Your task to perform on an android device: Open the web browser Image 0: 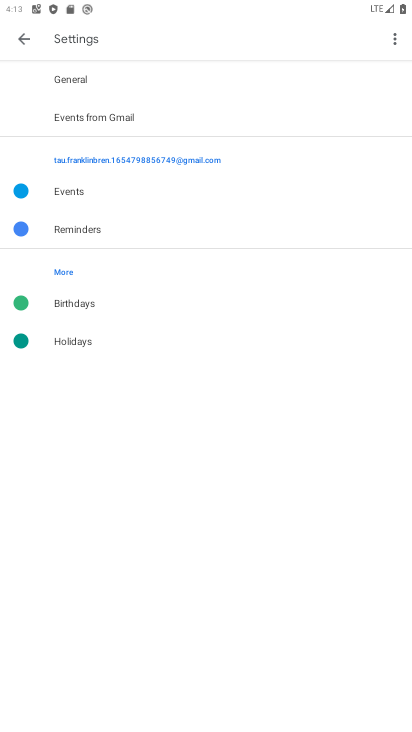
Step 0: press home button
Your task to perform on an android device: Open the web browser Image 1: 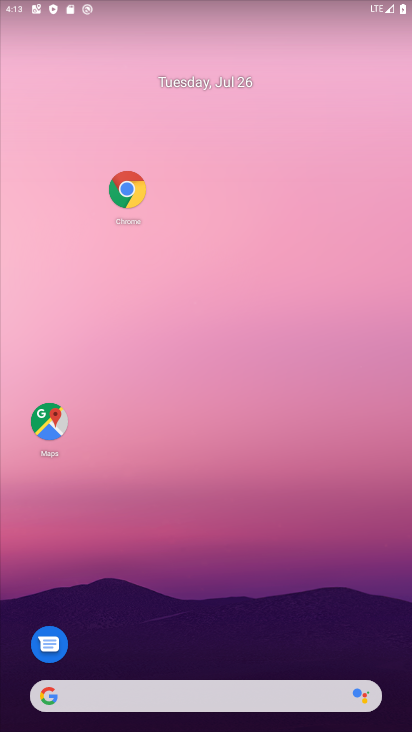
Step 1: click (125, 192)
Your task to perform on an android device: Open the web browser Image 2: 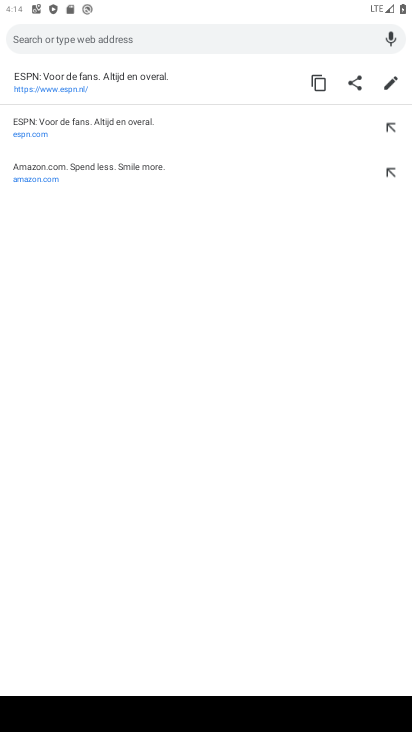
Step 2: task complete